Your task to perform on an android device: Search for sushi restaurants on Maps Image 0: 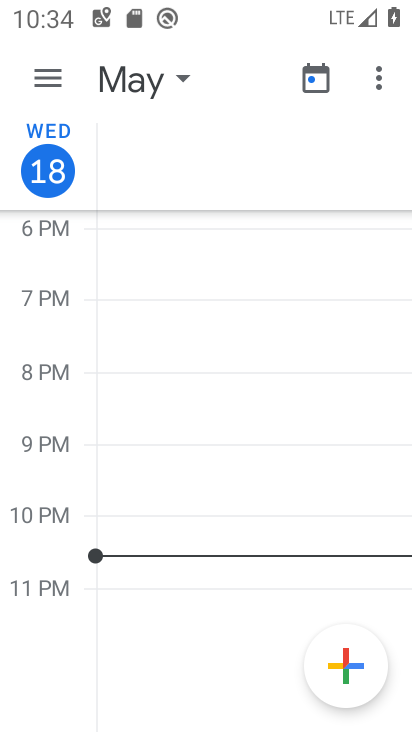
Step 0: press home button
Your task to perform on an android device: Search for sushi restaurants on Maps Image 1: 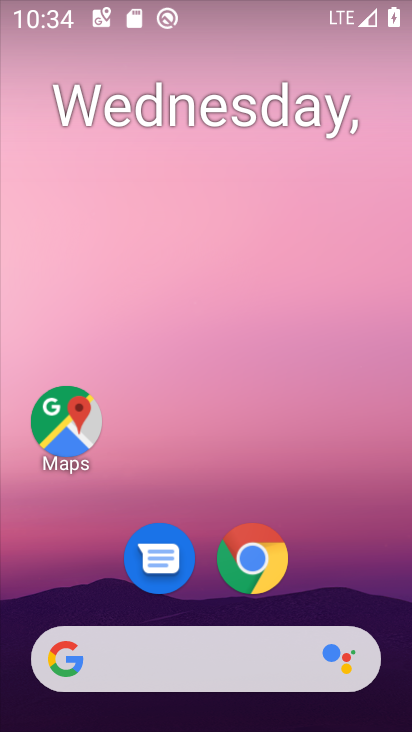
Step 1: click (65, 408)
Your task to perform on an android device: Search for sushi restaurants on Maps Image 2: 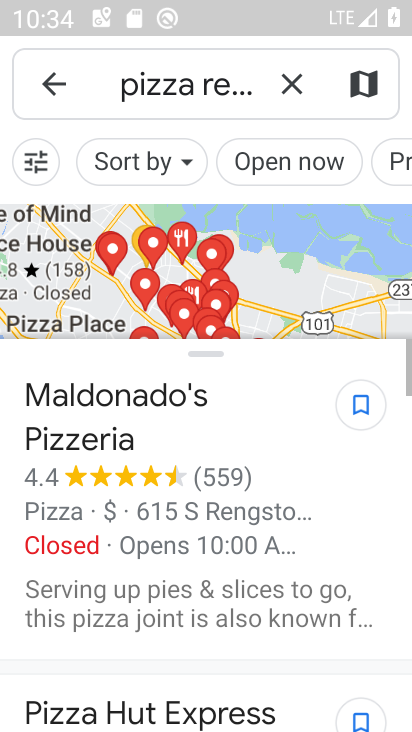
Step 2: click (280, 81)
Your task to perform on an android device: Search for sushi restaurants on Maps Image 3: 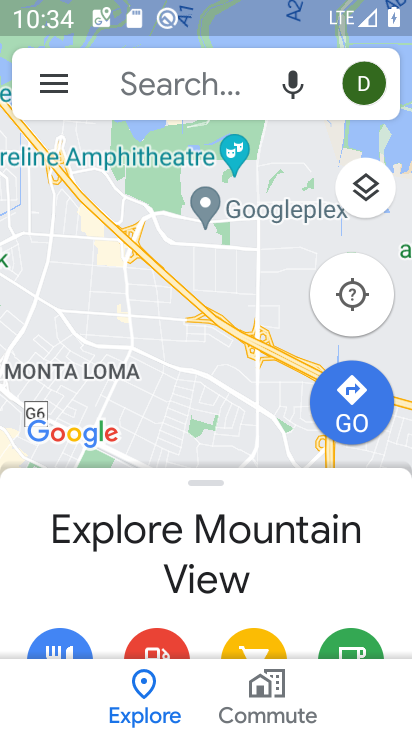
Step 3: click (185, 89)
Your task to perform on an android device: Search for sushi restaurants on Maps Image 4: 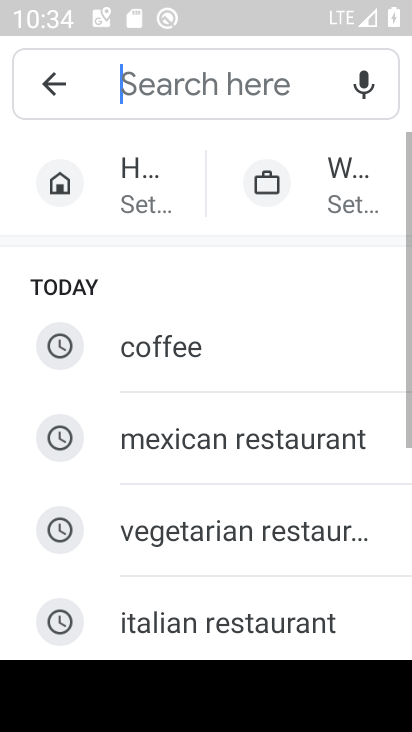
Step 4: drag from (70, 591) to (250, 138)
Your task to perform on an android device: Search for sushi restaurants on Maps Image 5: 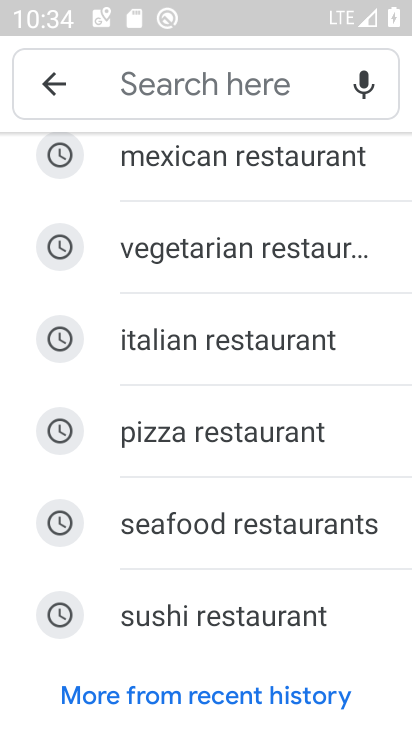
Step 5: click (187, 604)
Your task to perform on an android device: Search for sushi restaurants on Maps Image 6: 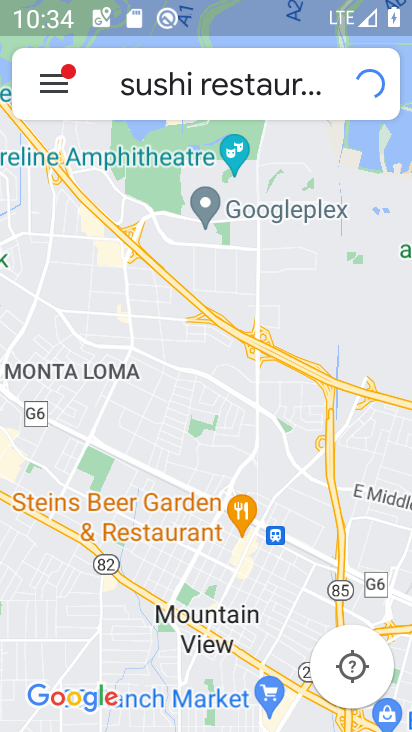
Step 6: task complete